Your task to perform on an android device: snooze an email in the gmail app Image 0: 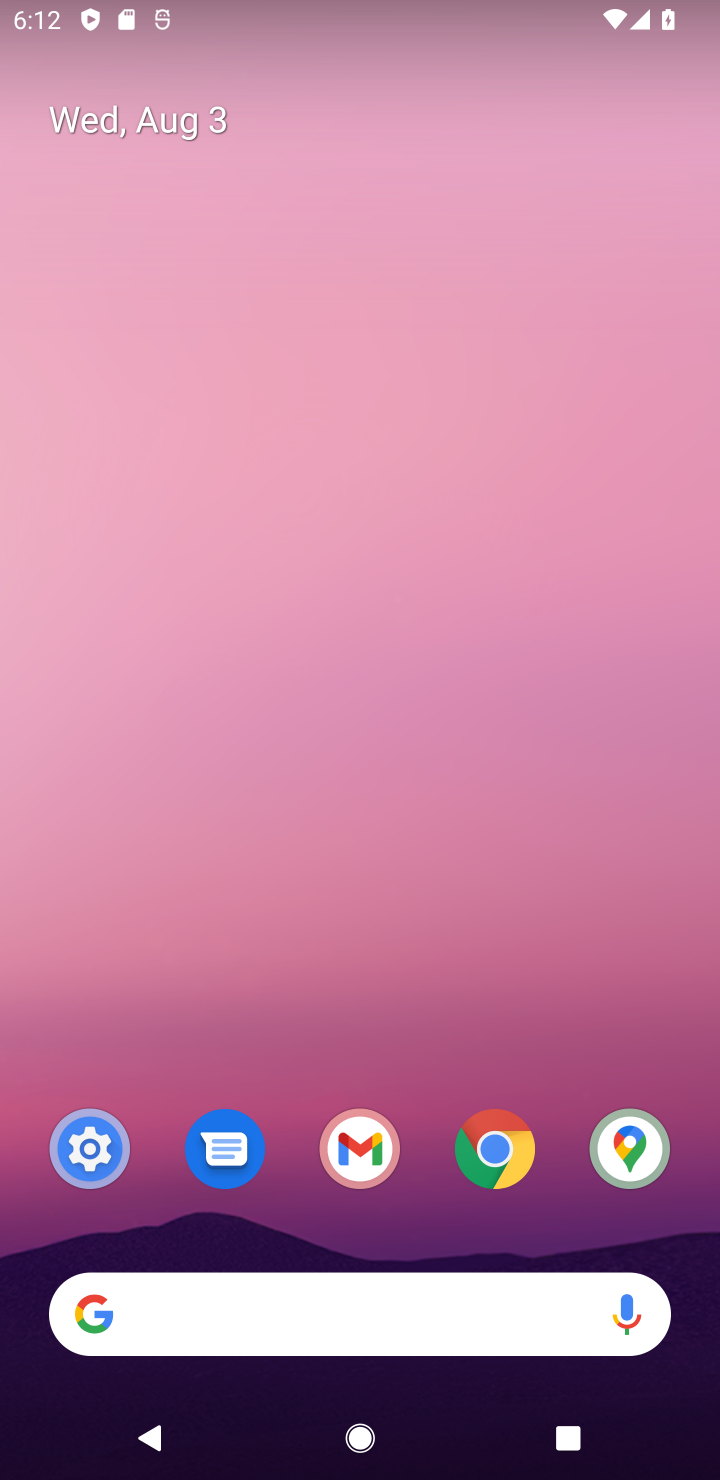
Step 0: click (369, 1187)
Your task to perform on an android device: snooze an email in the gmail app Image 1: 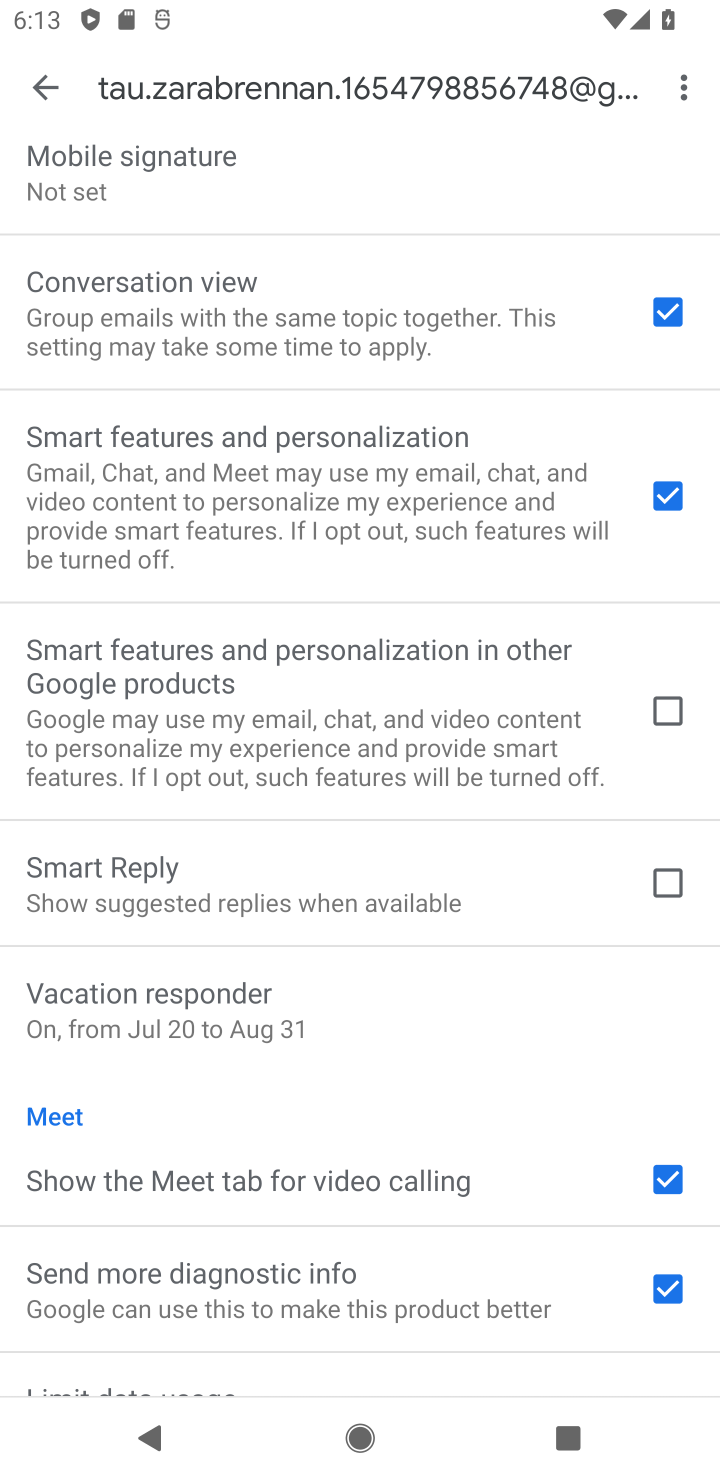
Step 1: click (45, 89)
Your task to perform on an android device: snooze an email in the gmail app Image 2: 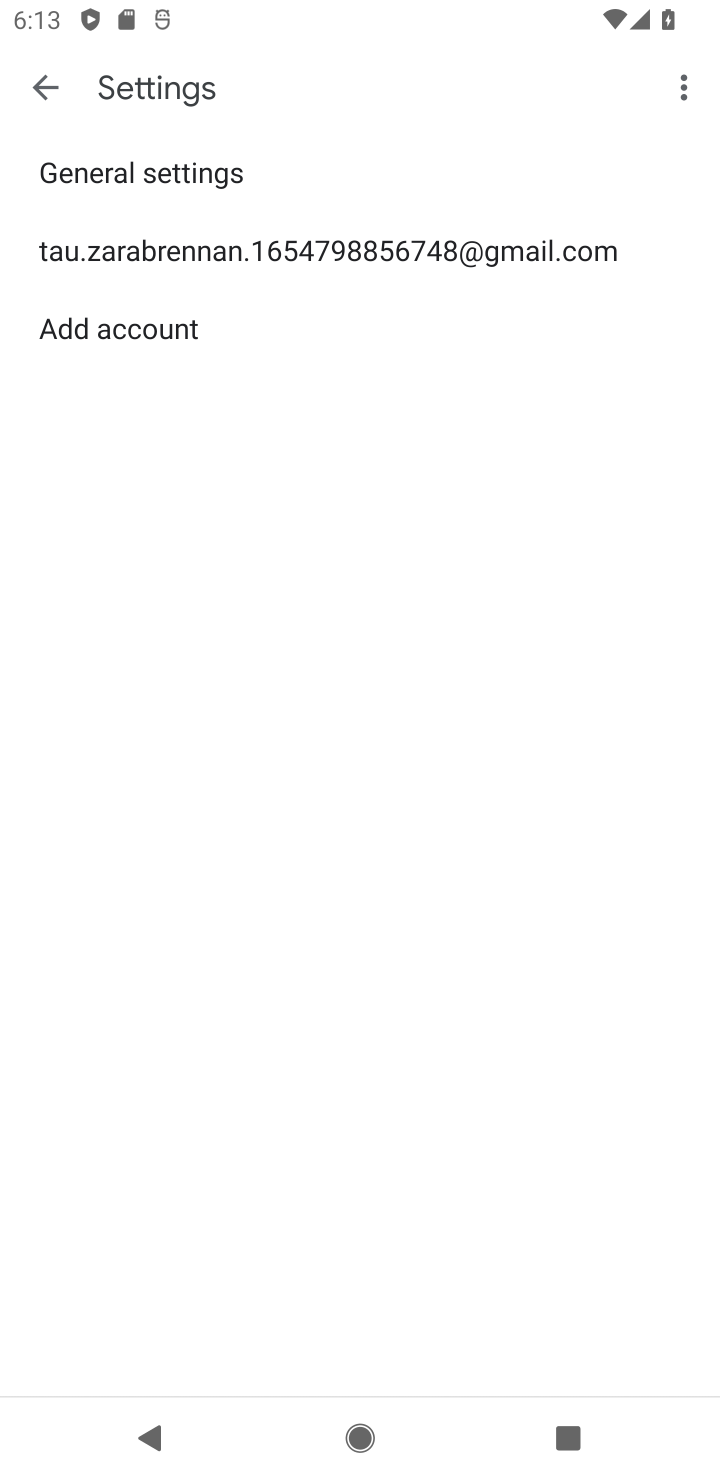
Step 2: click (47, 88)
Your task to perform on an android device: snooze an email in the gmail app Image 3: 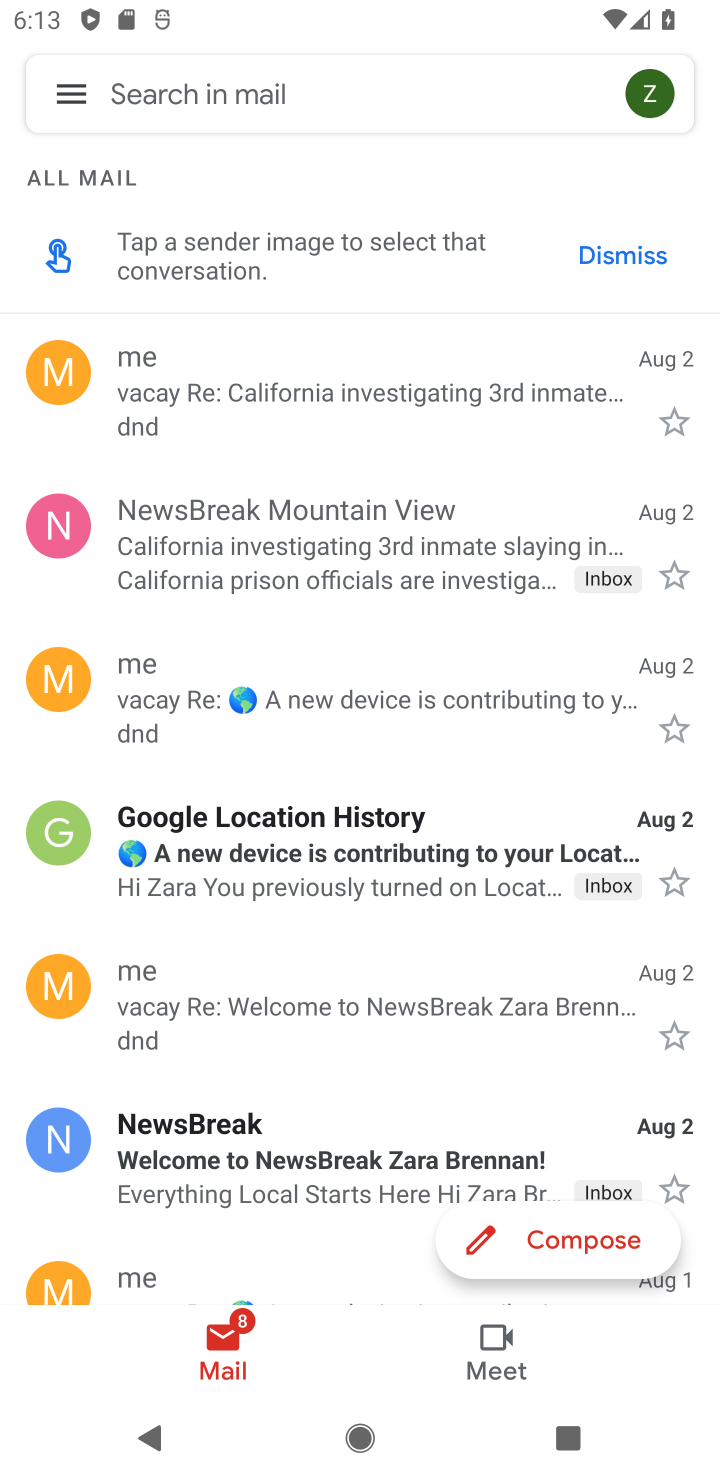
Step 3: click (58, 826)
Your task to perform on an android device: snooze an email in the gmail app Image 4: 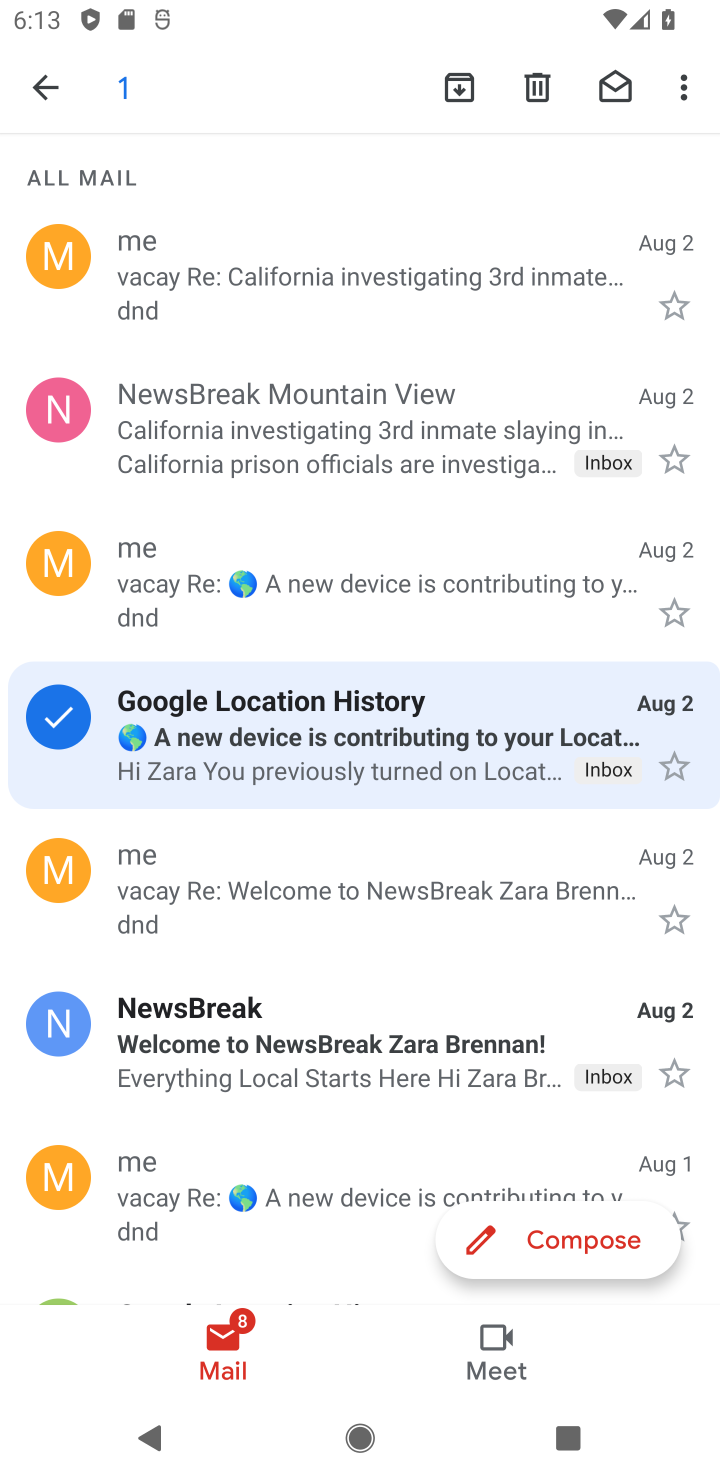
Step 4: click (674, 86)
Your task to perform on an android device: snooze an email in the gmail app Image 5: 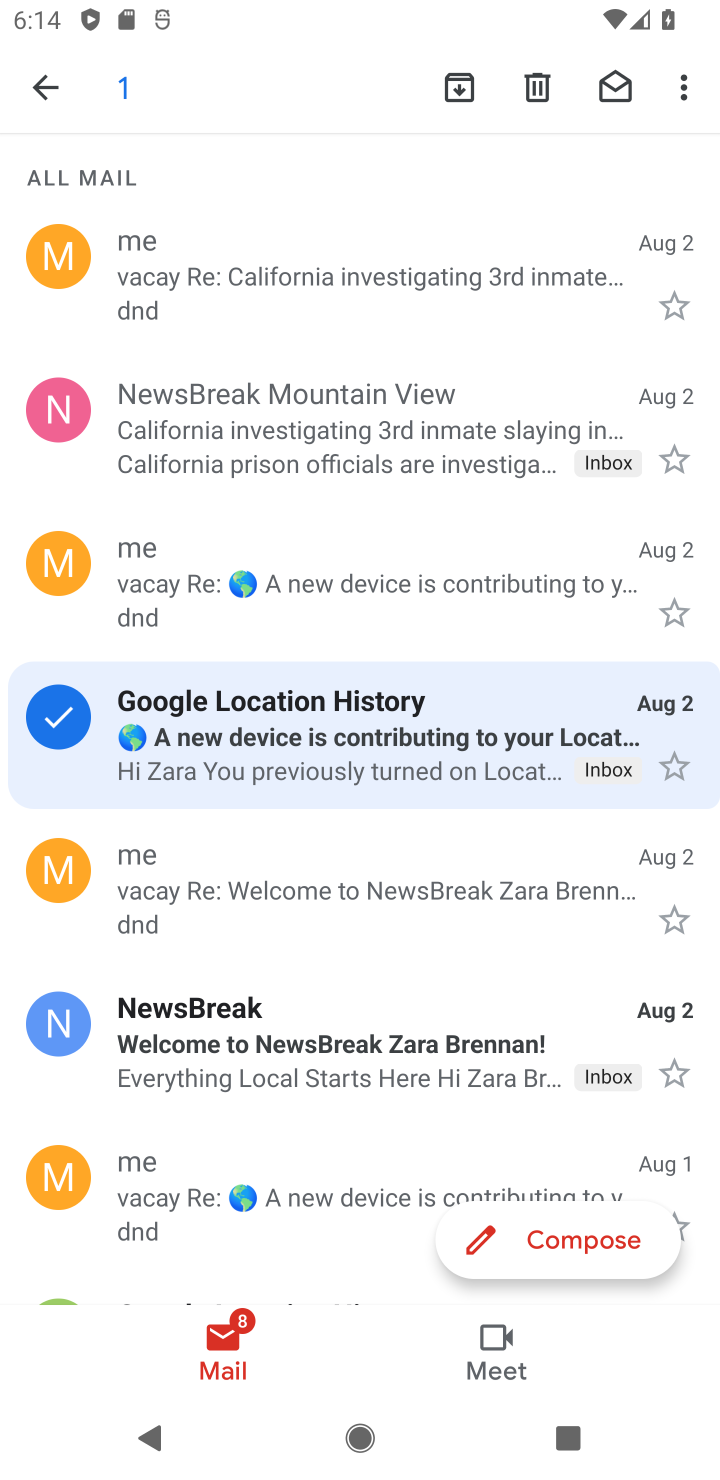
Step 5: click (690, 95)
Your task to perform on an android device: snooze an email in the gmail app Image 6: 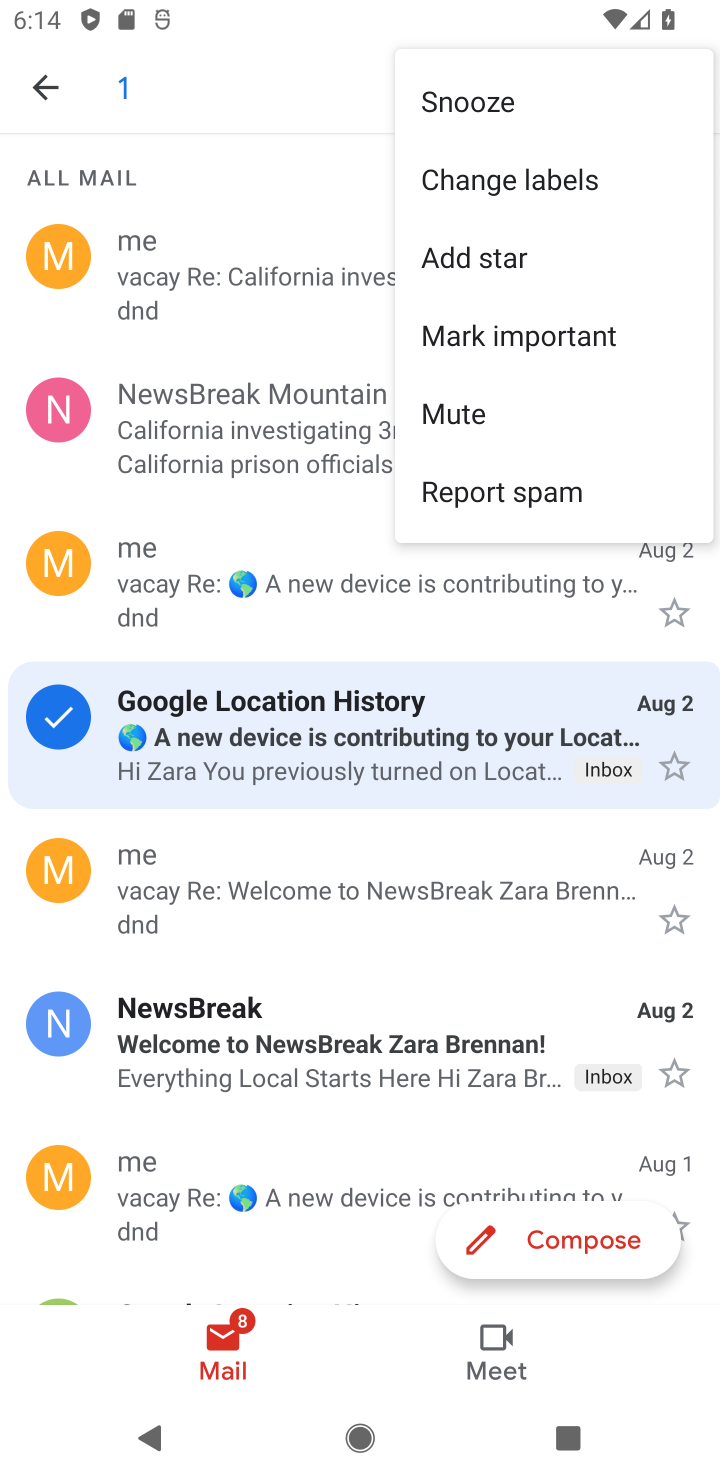
Step 6: click (509, 87)
Your task to perform on an android device: snooze an email in the gmail app Image 7: 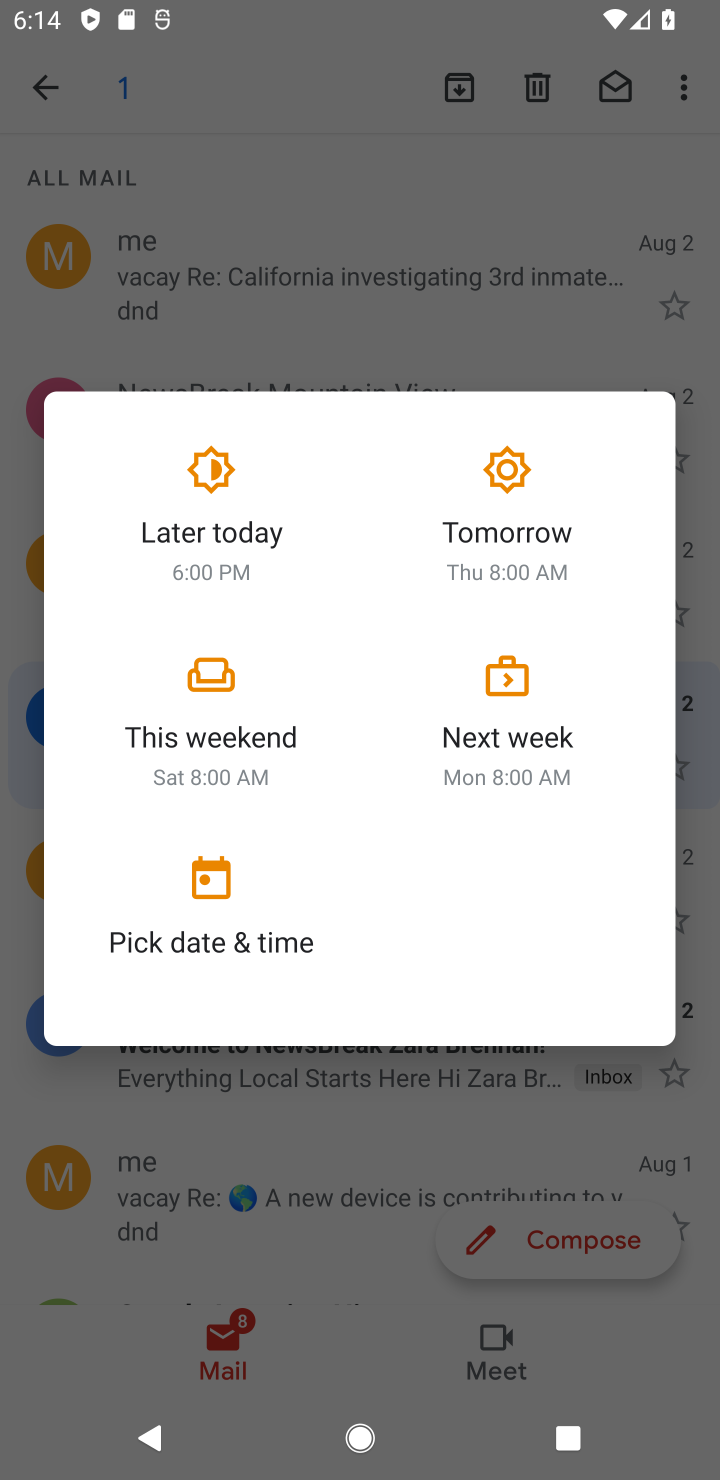
Step 7: click (212, 582)
Your task to perform on an android device: snooze an email in the gmail app Image 8: 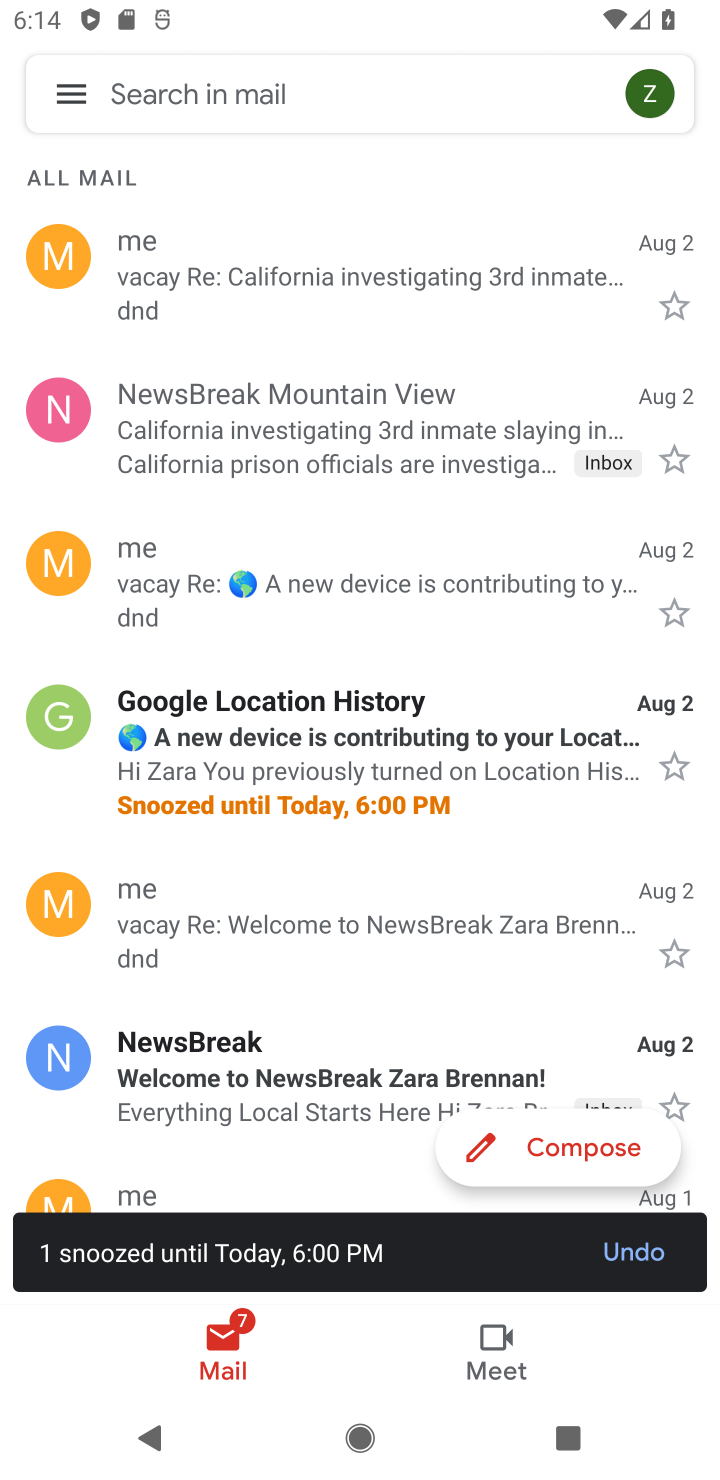
Step 8: task complete